Your task to perform on an android device: Open settings on Google Maps Image 0: 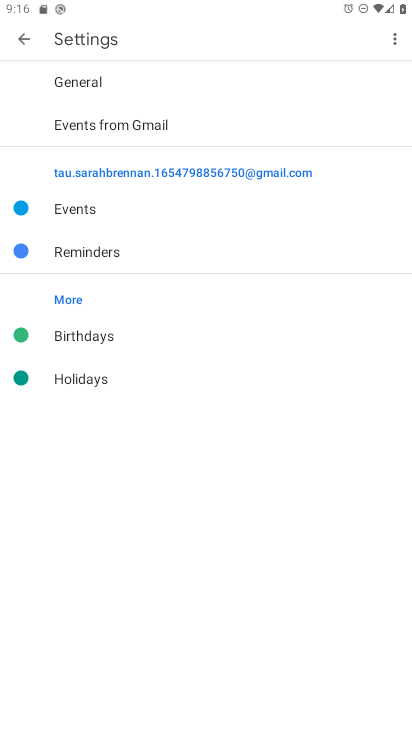
Step 0: press home button
Your task to perform on an android device: Open settings on Google Maps Image 1: 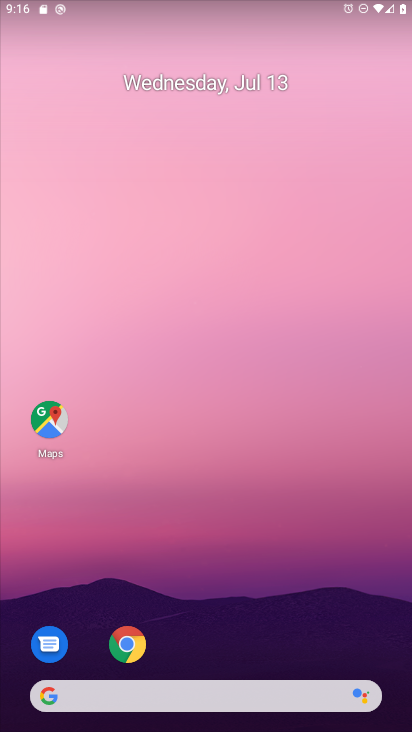
Step 1: click (43, 419)
Your task to perform on an android device: Open settings on Google Maps Image 2: 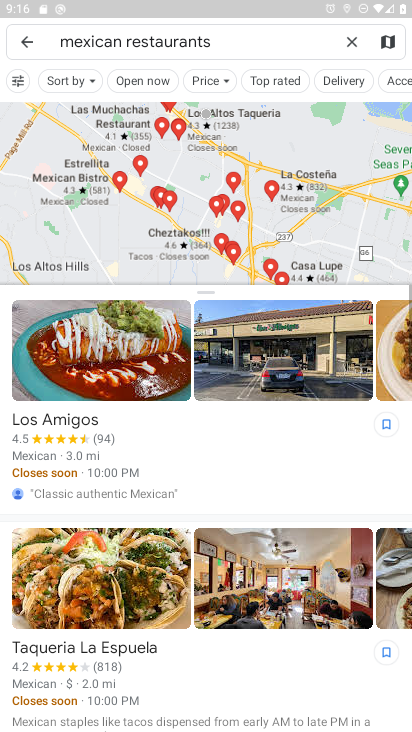
Step 2: click (30, 41)
Your task to perform on an android device: Open settings on Google Maps Image 3: 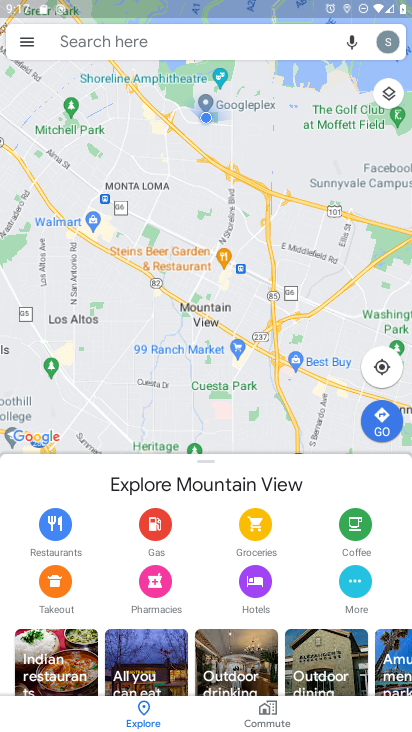
Step 3: task complete